Your task to perform on an android device: Open the web browser Image 0: 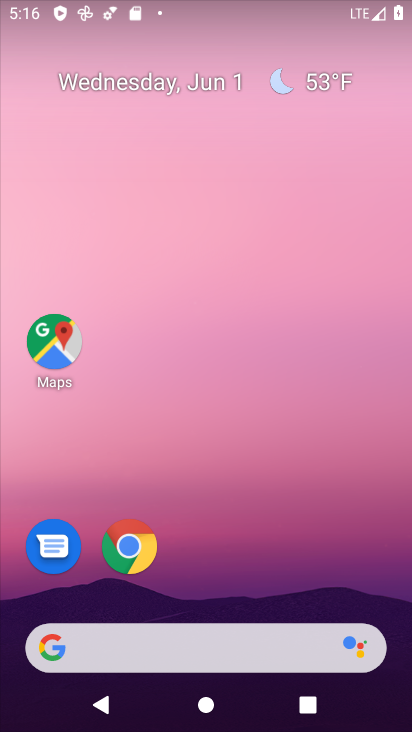
Step 0: drag from (270, 456) to (233, 74)
Your task to perform on an android device: Open the web browser Image 1: 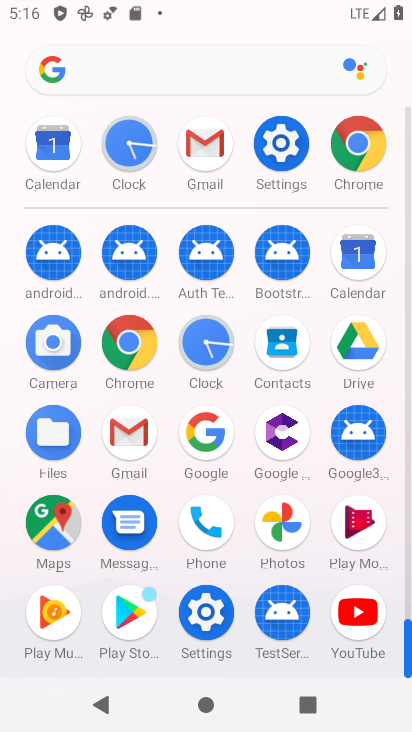
Step 1: drag from (7, 521) to (10, 229)
Your task to perform on an android device: Open the web browser Image 2: 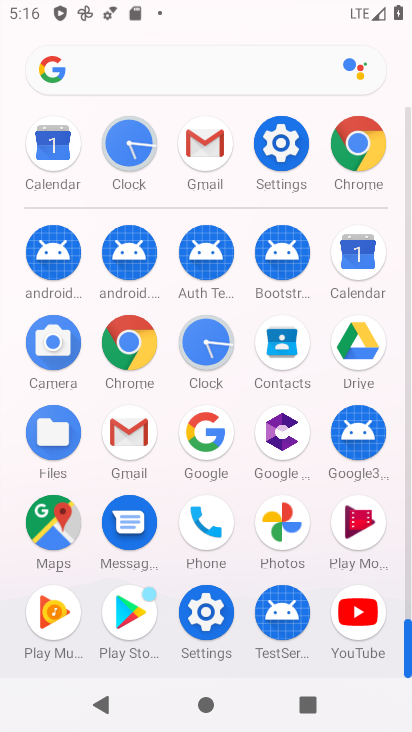
Step 2: click (128, 337)
Your task to perform on an android device: Open the web browser Image 3: 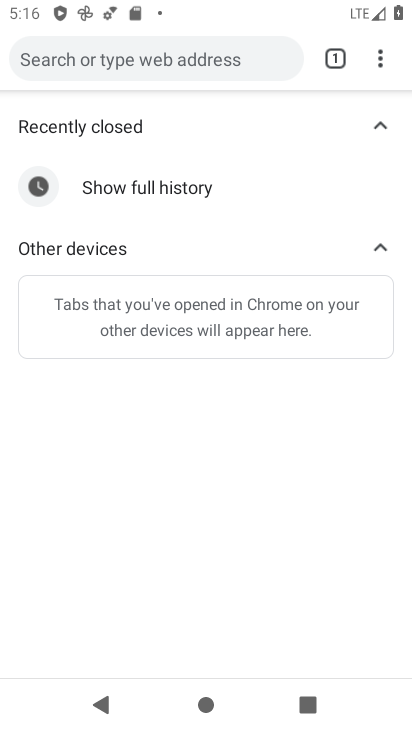
Step 3: task complete